Your task to perform on an android device: turn on airplane mode Image 0: 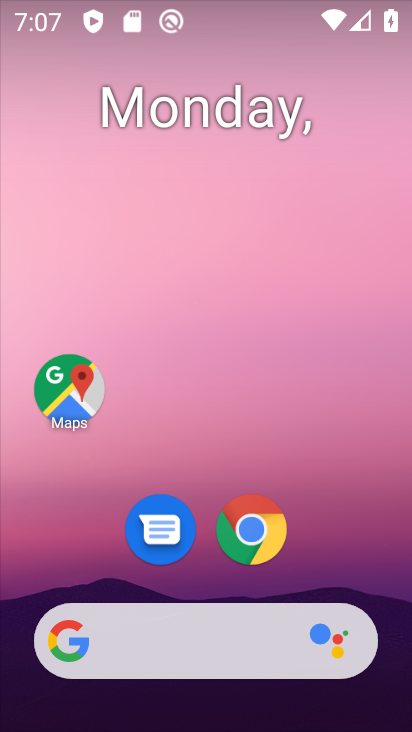
Step 0: drag from (242, 433) to (242, 24)
Your task to perform on an android device: turn on airplane mode Image 1: 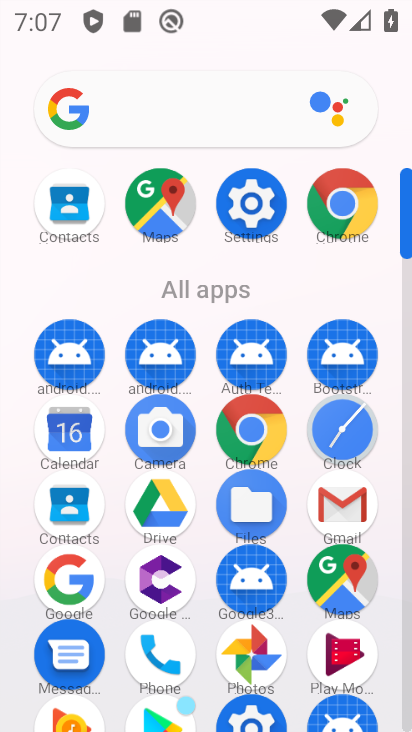
Step 1: click (248, 205)
Your task to perform on an android device: turn on airplane mode Image 2: 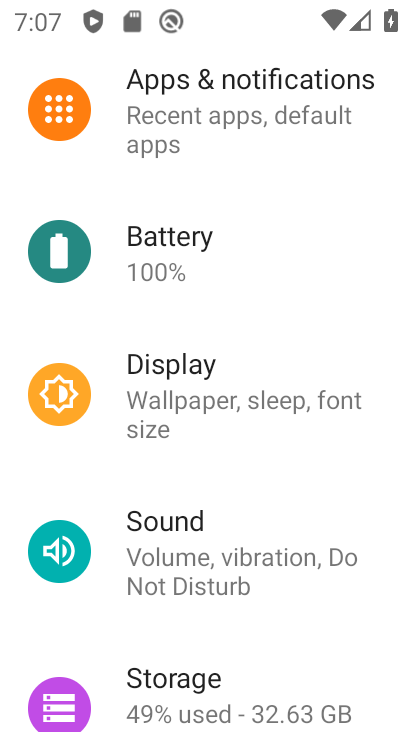
Step 2: drag from (248, 205) to (257, 577)
Your task to perform on an android device: turn on airplane mode Image 3: 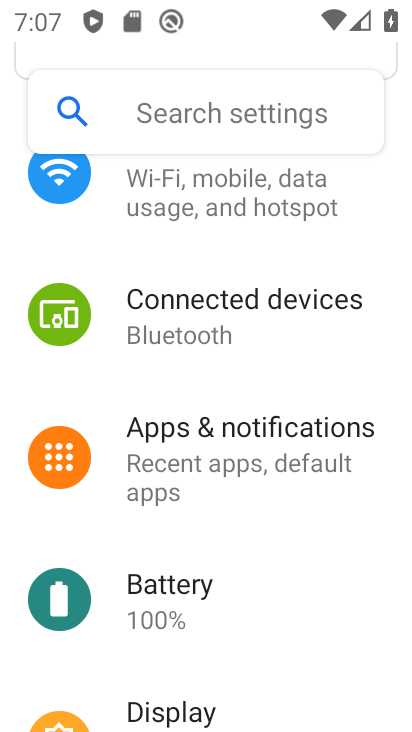
Step 3: drag from (223, 345) to (244, 521)
Your task to perform on an android device: turn on airplane mode Image 4: 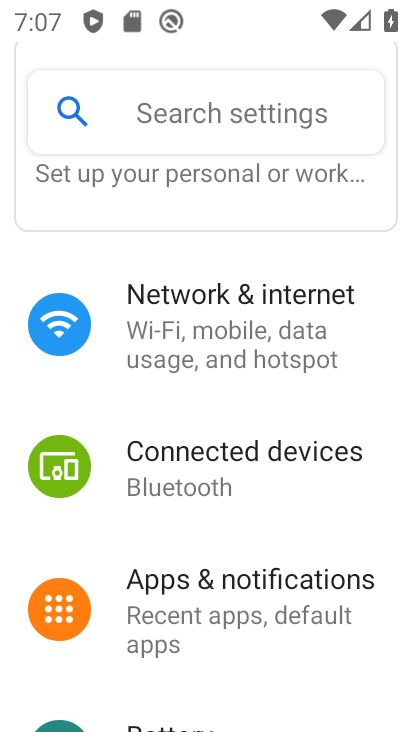
Step 4: click (247, 294)
Your task to perform on an android device: turn on airplane mode Image 5: 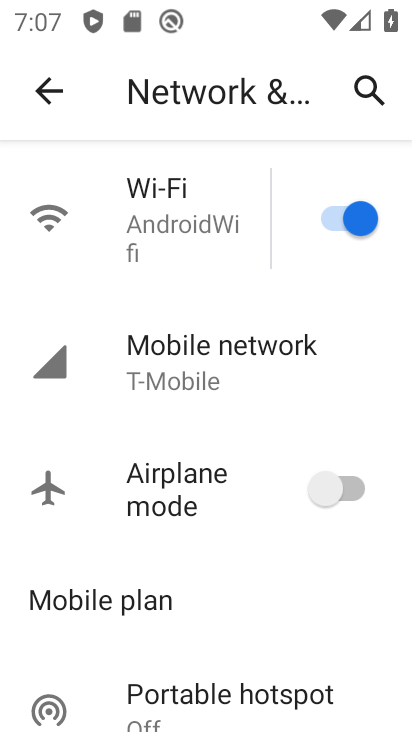
Step 5: click (323, 500)
Your task to perform on an android device: turn on airplane mode Image 6: 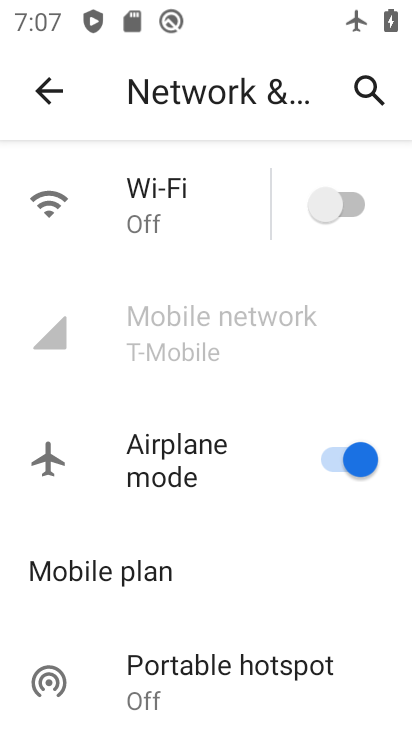
Step 6: task complete